Your task to perform on an android device: Open internet settings Image 0: 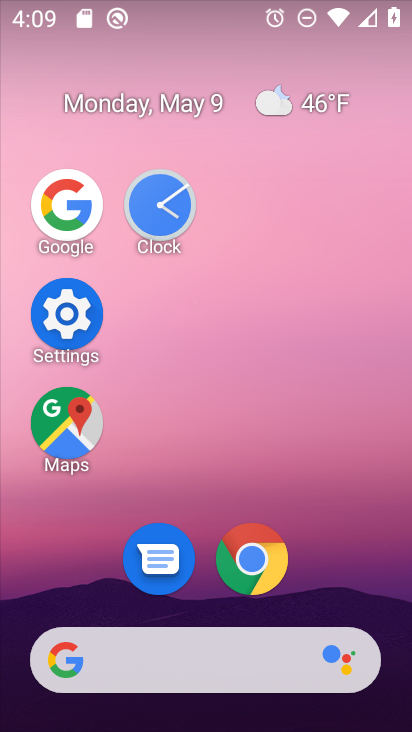
Step 0: click (61, 300)
Your task to perform on an android device: Open internet settings Image 1: 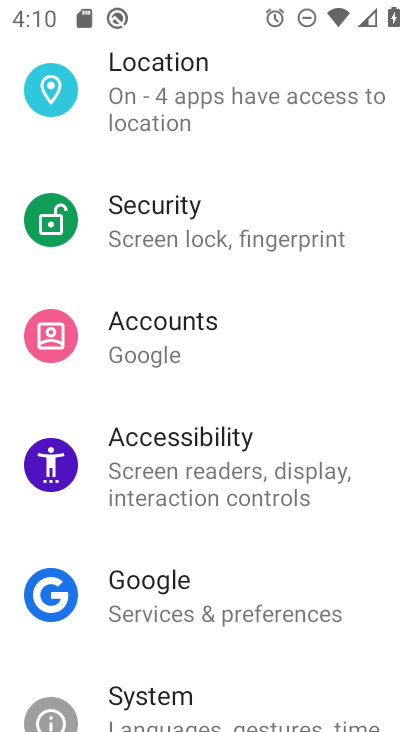
Step 1: drag from (293, 250) to (273, 667)
Your task to perform on an android device: Open internet settings Image 2: 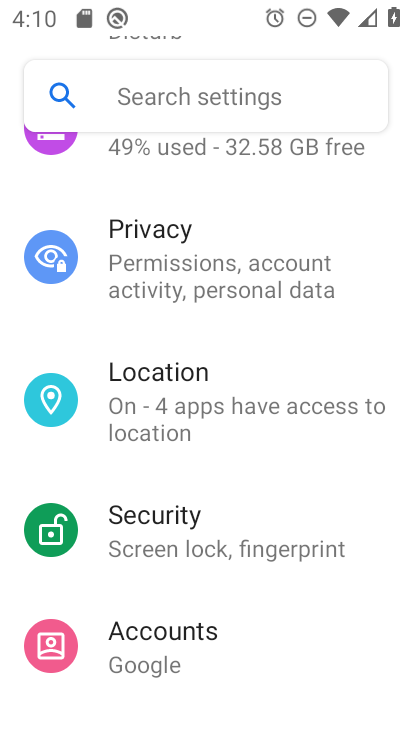
Step 2: drag from (280, 174) to (286, 620)
Your task to perform on an android device: Open internet settings Image 3: 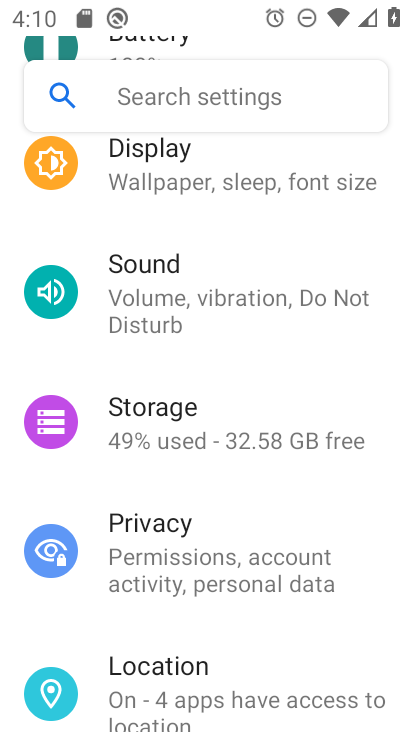
Step 3: drag from (236, 169) to (263, 566)
Your task to perform on an android device: Open internet settings Image 4: 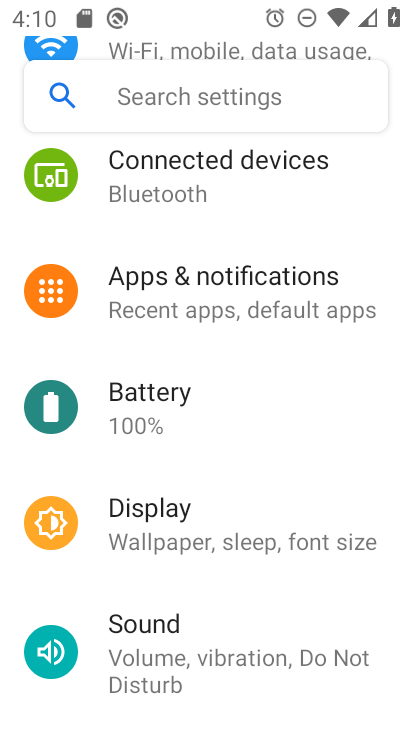
Step 4: drag from (301, 202) to (320, 544)
Your task to perform on an android device: Open internet settings Image 5: 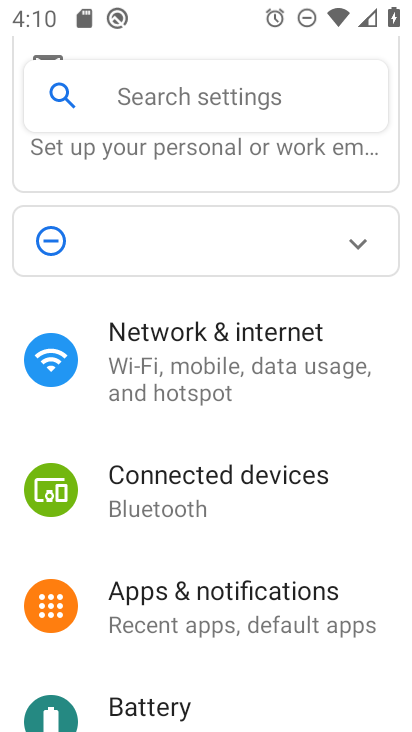
Step 5: click (264, 379)
Your task to perform on an android device: Open internet settings Image 6: 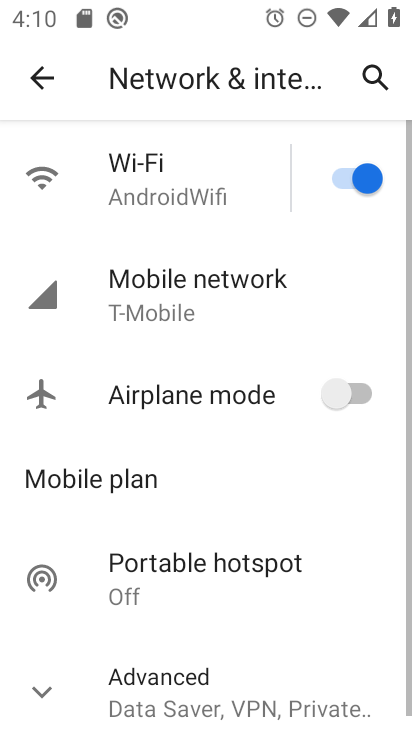
Step 6: click (233, 328)
Your task to perform on an android device: Open internet settings Image 7: 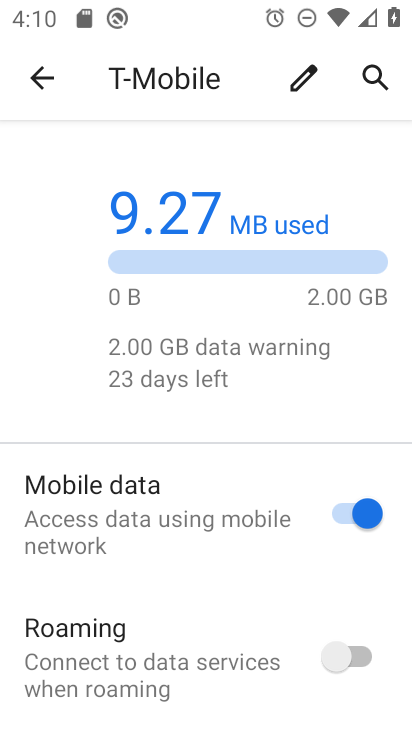
Step 7: task complete